Your task to perform on an android device: Go to network settings Image 0: 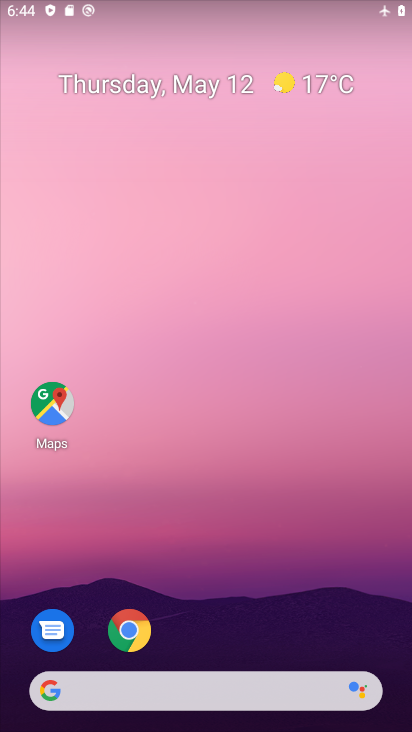
Step 0: drag from (334, 616) to (212, 19)
Your task to perform on an android device: Go to network settings Image 1: 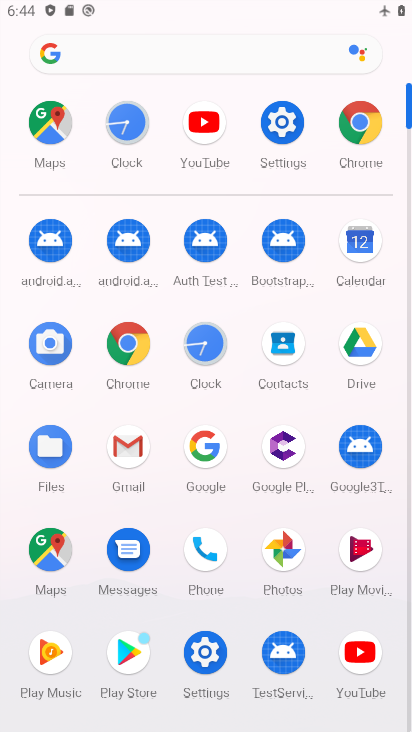
Step 1: click (261, 130)
Your task to perform on an android device: Go to network settings Image 2: 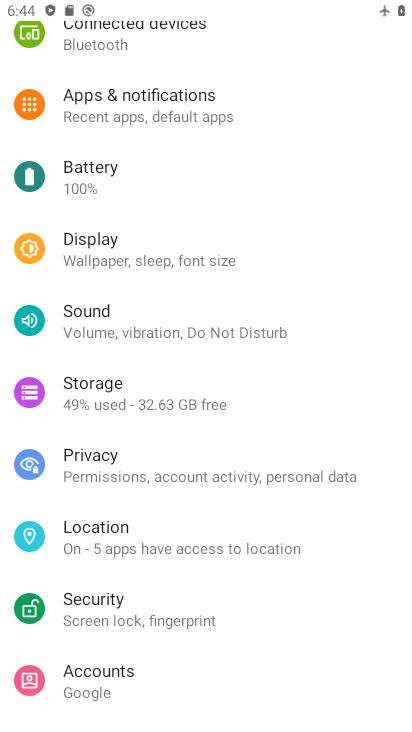
Step 2: drag from (260, 130) to (222, 712)
Your task to perform on an android device: Go to network settings Image 3: 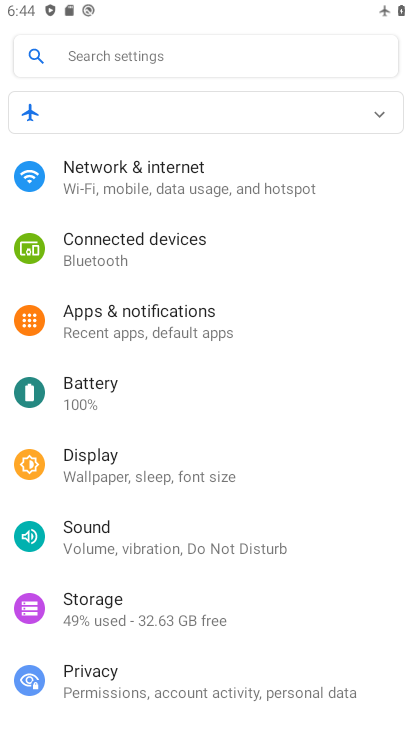
Step 3: click (172, 177)
Your task to perform on an android device: Go to network settings Image 4: 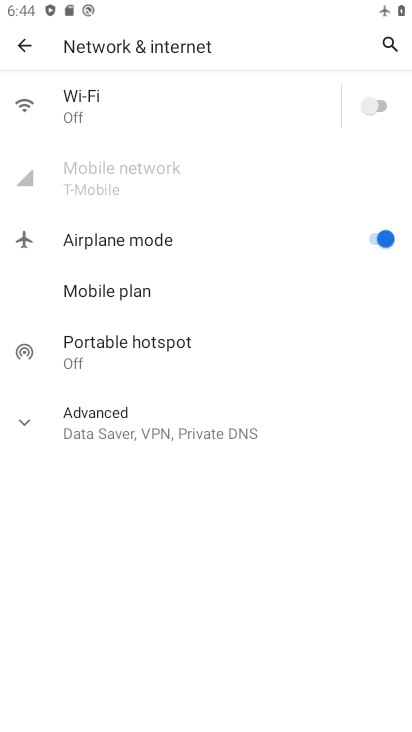
Step 4: task complete